Your task to perform on an android device: Open Google Image 0: 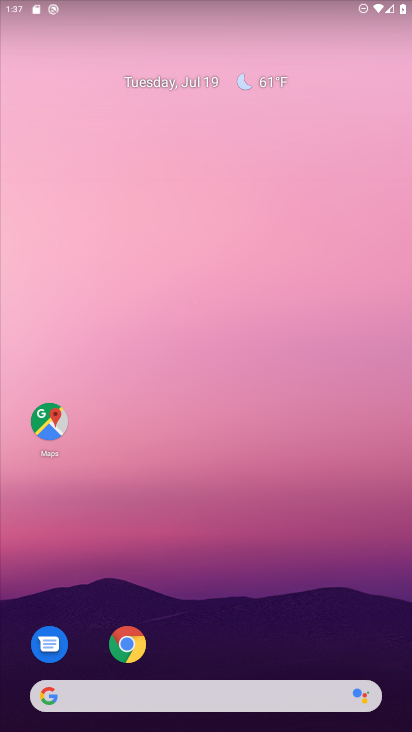
Step 0: drag from (388, 688) to (381, 12)
Your task to perform on an android device: Open Google Image 1: 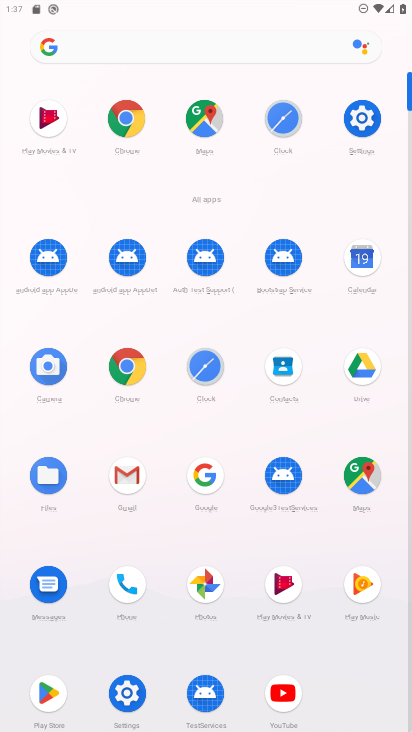
Step 1: click (197, 478)
Your task to perform on an android device: Open Google Image 2: 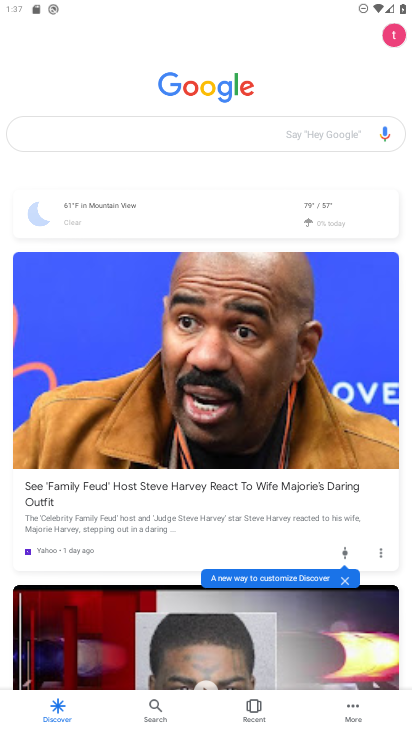
Step 2: task complete